Your task to perform on an android device: Open Android settings Image 0: 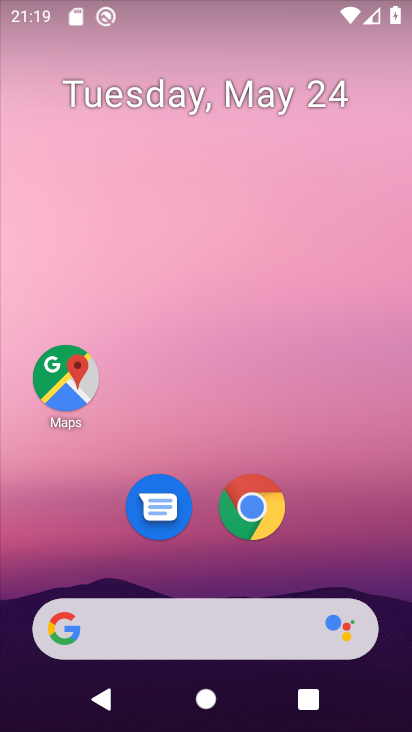
Step 0: drag from (213, 547) to (250, 215)
Your task to perform on an android device: Open Android settings Image 1: 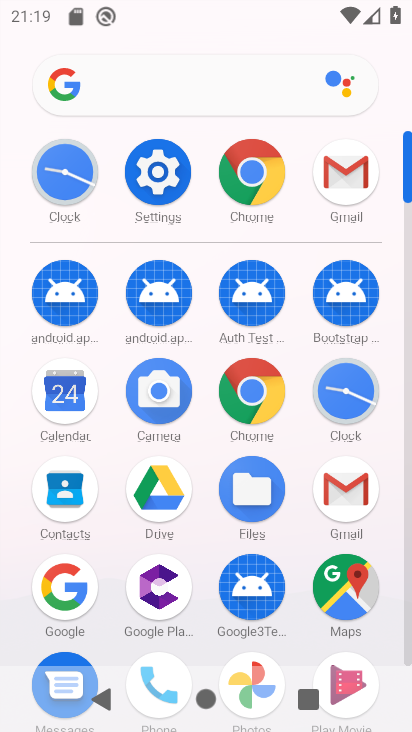
Step 1: click (171, 177)
Your task to perform on an android device: Open Android settings Image 2: 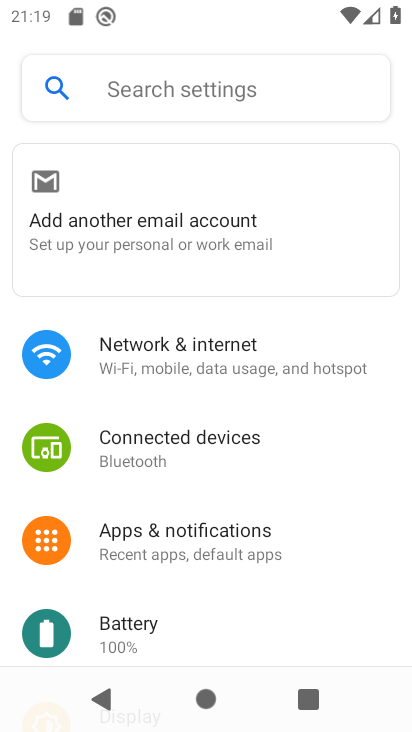
Step 2: drag from (205, 579) to (236, 117)
Your task to perform on an android device: Open Android settings Image 3: 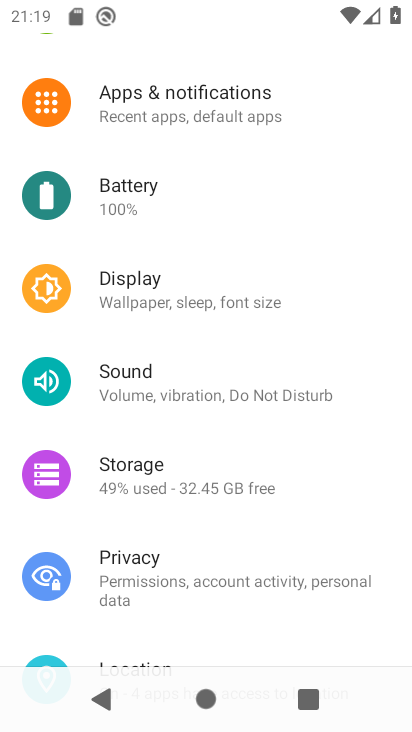
Step 3: drag from (216, 632) to (221, 221)
Your task to perform on an android device: Open Android settings Image 4: 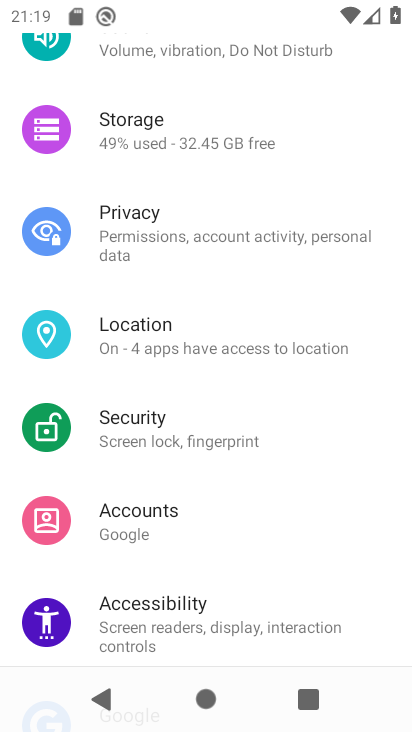
Step 4: drag from (235, 609) to (265, 187)
Your task to perform on an android device: Open Android settings Image 5: 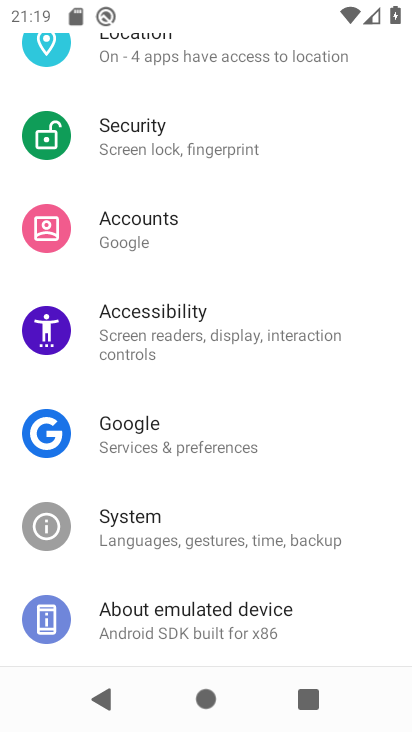
Step 5: click (193, 629)
Your task to perform on an android device: Open Android settings Image 6: 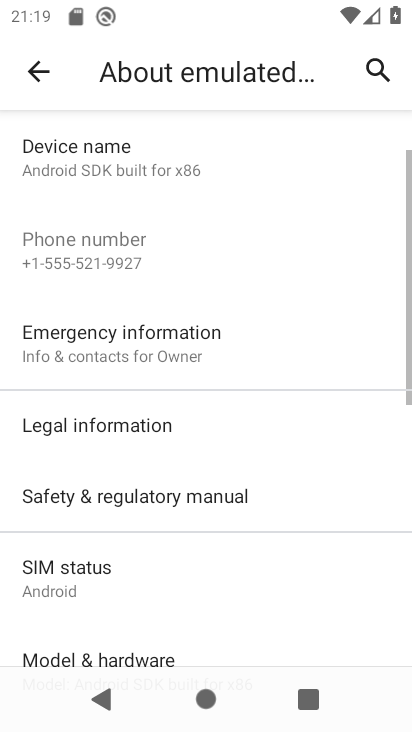
Step 6: drag from (220, 571) to (290, 192)
Your task to perform on an android device: Open Android settings Image 7: 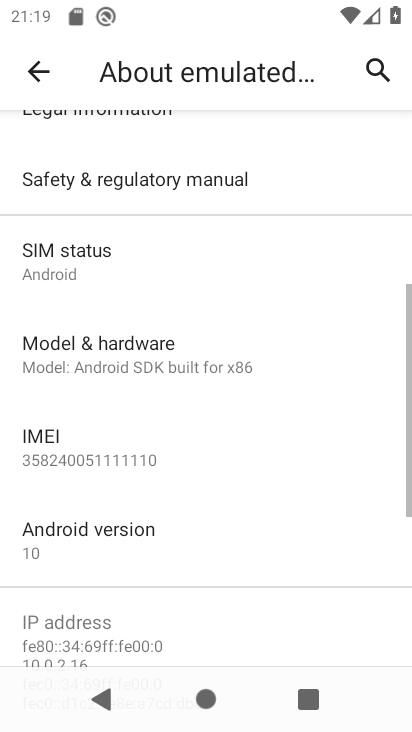
Step 7: drag from (208, 525) to (249, 272)
Your task to perform on an android device: Open Android settings Image 8: 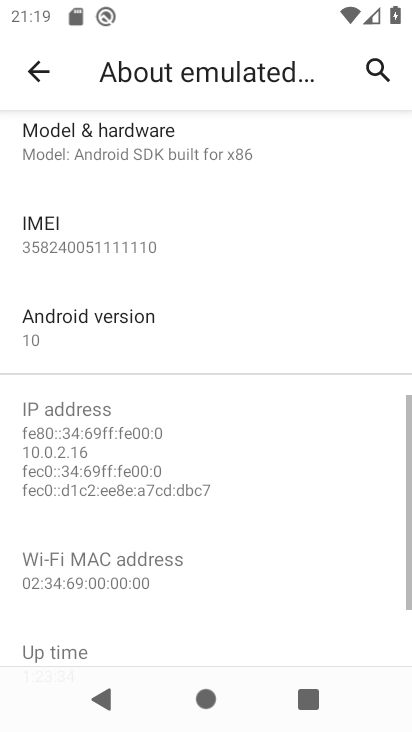
Step 8: click (141, 326)
Your task to perform on an android device: Open Android settings Image 9: 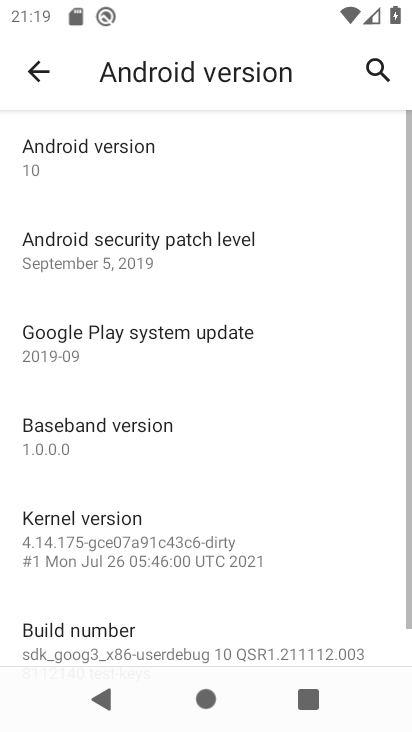
Step 9: task complete